Your task to perform on an android device: Open notification settings Image 0: 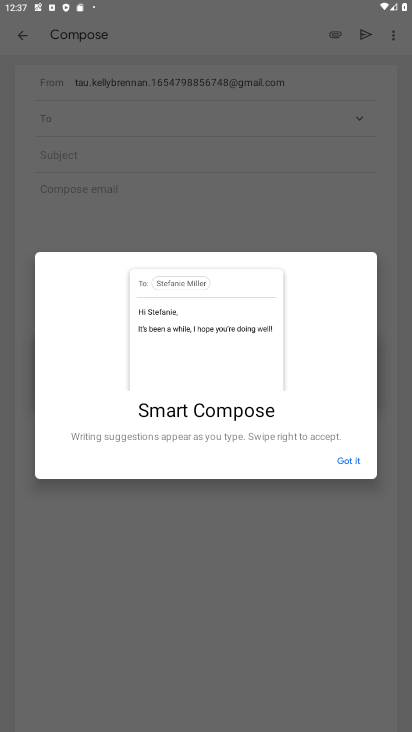
Step 0: press home button
Your task to perform on an android device: Open notification settings Image 1: 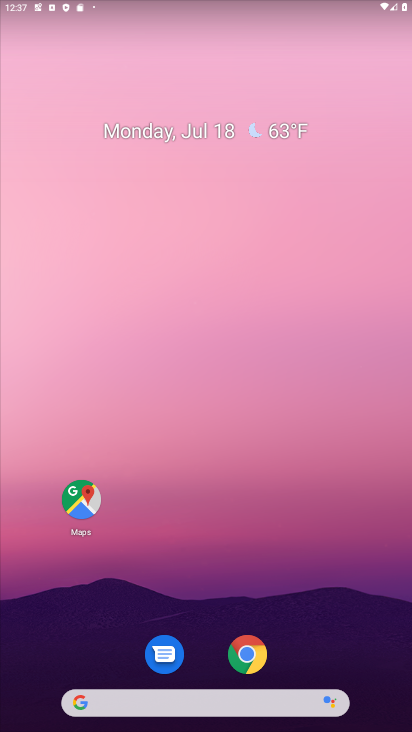
Step 1: drag from (187, 490) to (180, 229)
Your task to perform on an android device: Open notification settings Image 2: 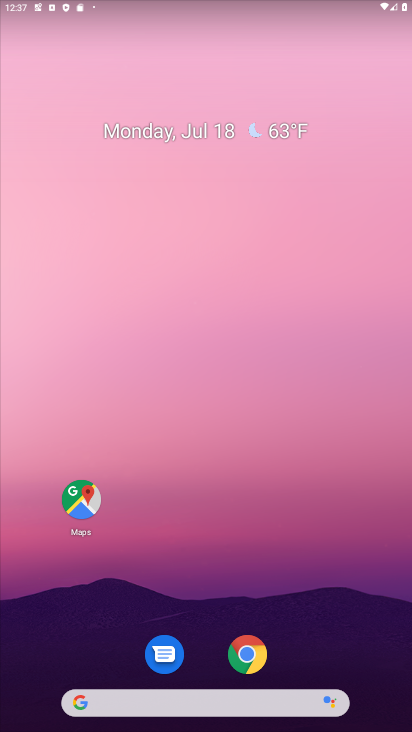
Step 2: drag from (213, 593) to (394, 127)
Your task to perform on an android device: Open notification settings Image 3: 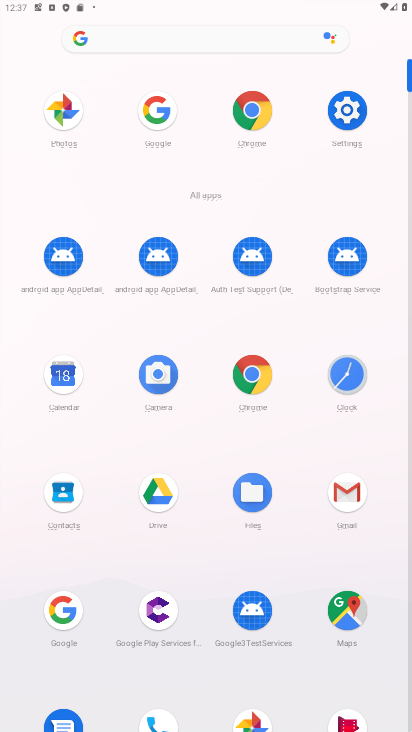
Step 3: click (373, 121)
Your task to perform on an android device: Open notification settings Image 4: 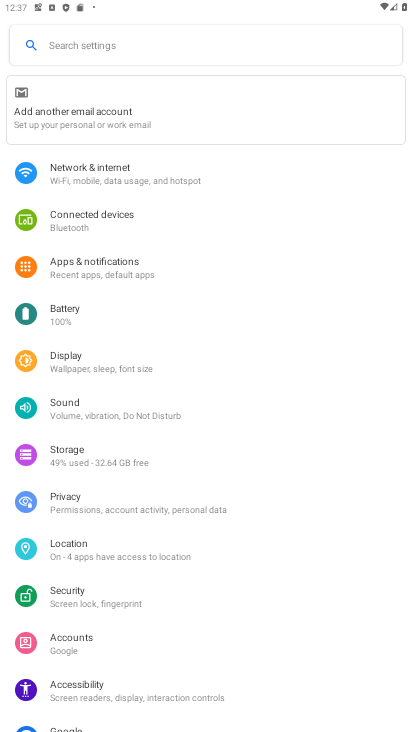
Step 4: click (147, 265)
Your task to perform on an android device: Open notification settings Image 5: 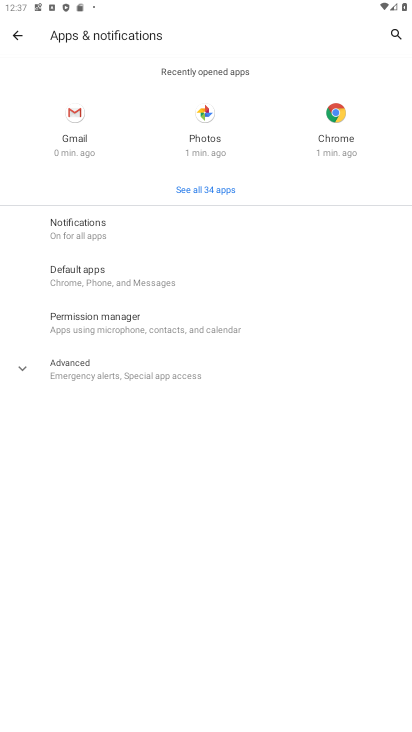
Step 5: click (127, 221)
Your task to perform on an android device: Open notification settings Image 6: 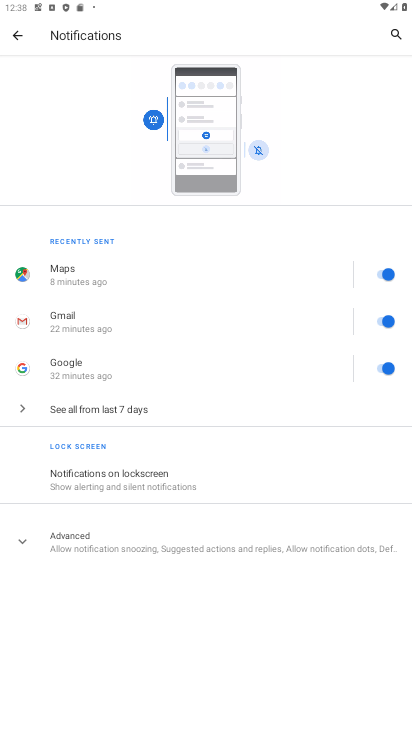
Step 6: task complete